Your task to perform on an android device: turn off javascript in the chrome app Image 0: 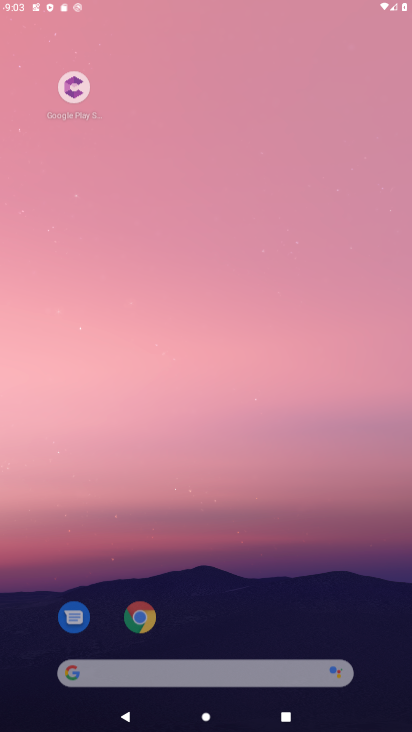
Step 0: click (113, 686)
Your task to perform on an android device: turn off javascript in the chrome app Image 1: 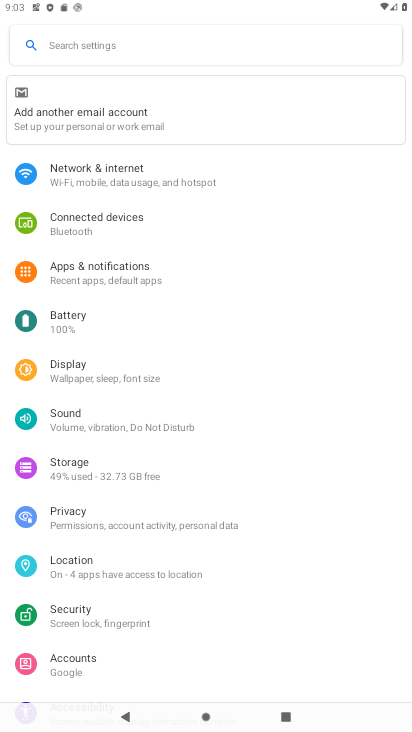
Step 1: press home button
Your task to perform on an android device: turn off javascript in the chrome app Image 2: 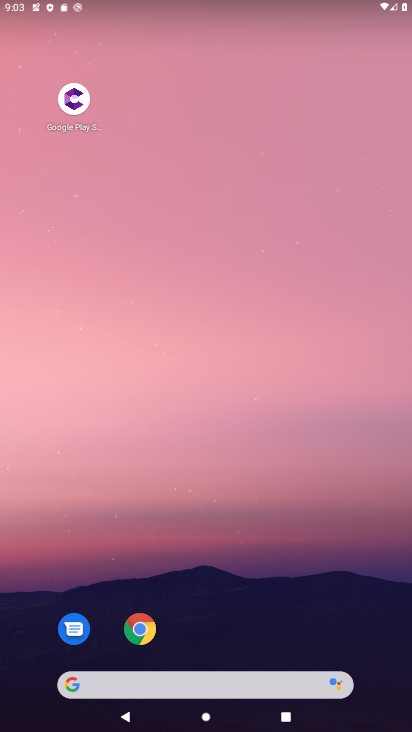
Step 2: click (126, 633)
Your task to perform on an android device: turn off javascript in the chrome app Image 3: 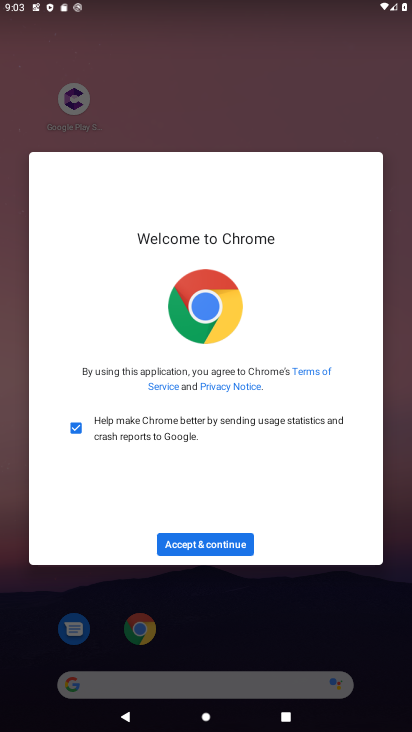
Step 3: click (187, 542)
Your task to perform on an android device: turn off javascript in the chrome app Image 4: 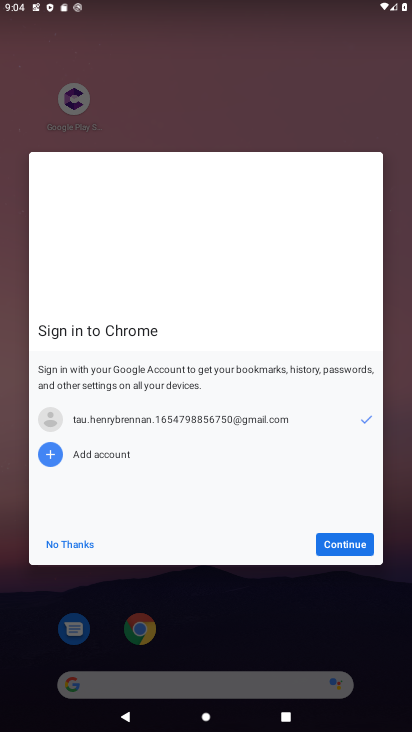
Step 4: click (324, 538)
Your task to perform on an android device: turn off javascript in the chrome app Image 5: 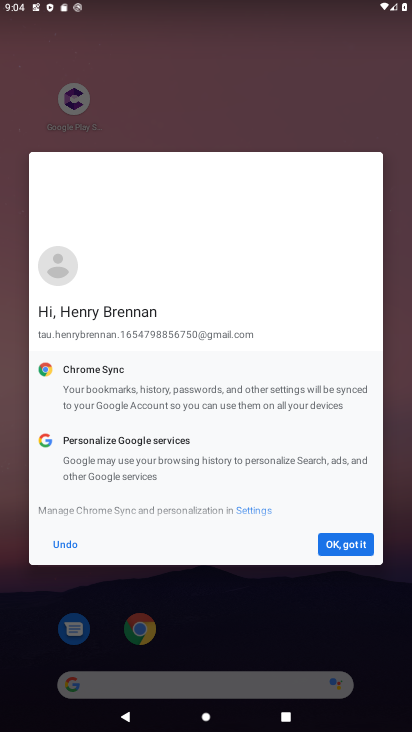
Step 5: click (337, 543)
Your task to perform on an android device: turn off javascript in the chrome app Image 6: 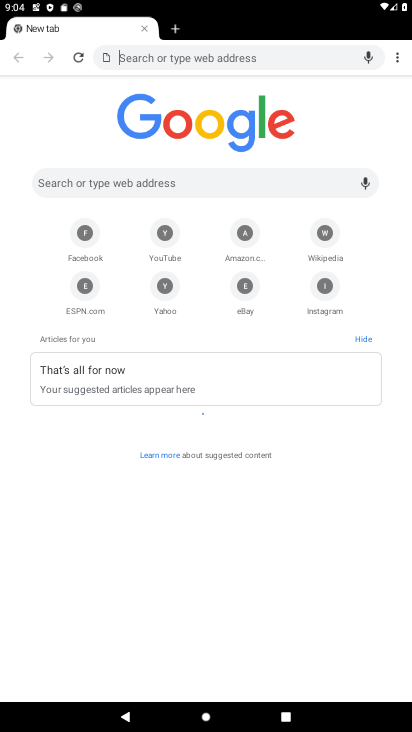
Step 6: click (397, 52)
Your task to perform on an android device: turn off javascript in the chrome app Image 7: 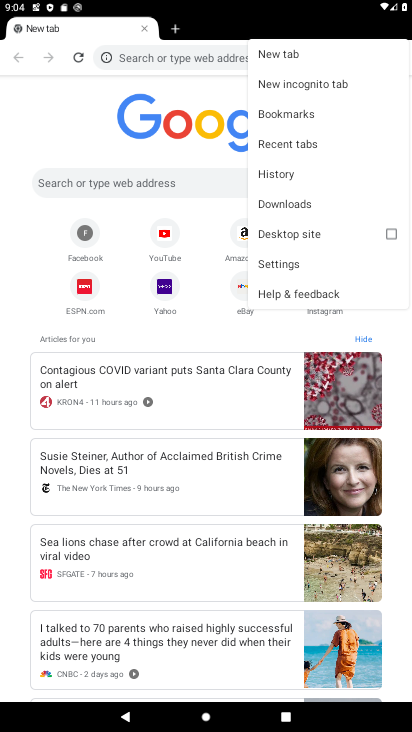
Step 7: click (268, 265)
Your task to perform on an android device: turn off javascript in the chrome app Image 8: 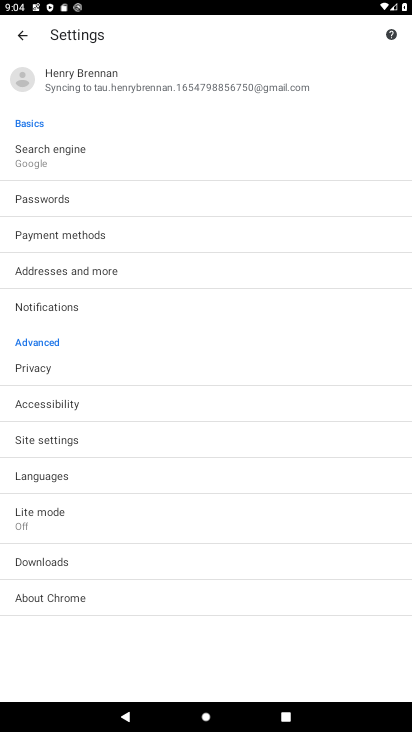
Step 8: click (44, 431)
Your task to perform on an android device: turn off javascript in the chrome app Image 9: 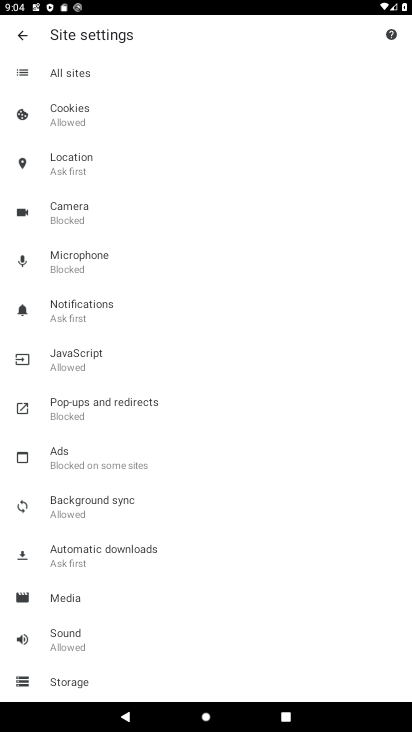
Step 9: click (62, 359)
Your task to perform on an android device: turn off javascript in the chrome app Image 10: 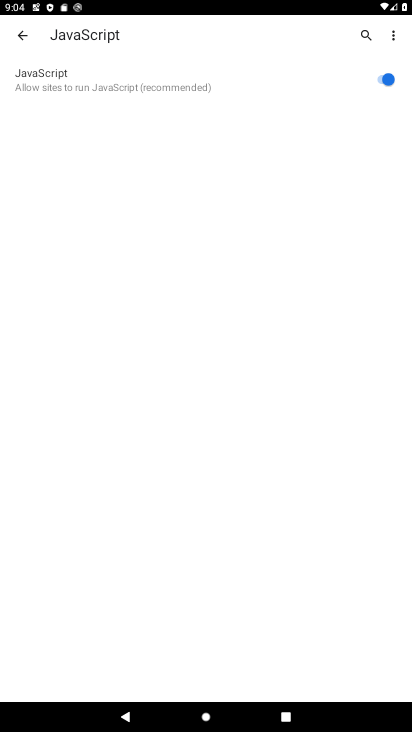
Step 10: click (388, 77)
Your task to perform on an android device: turn off javascript in the chrome app Image 11: 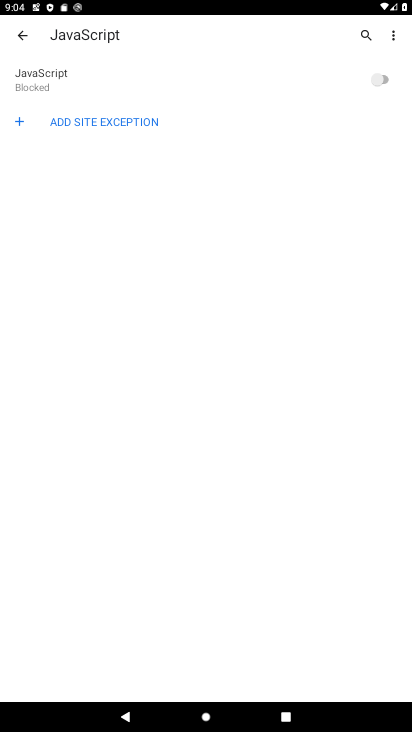
Step 11: task complete